Your task to perform on an android device: Open Android settings Image 0: 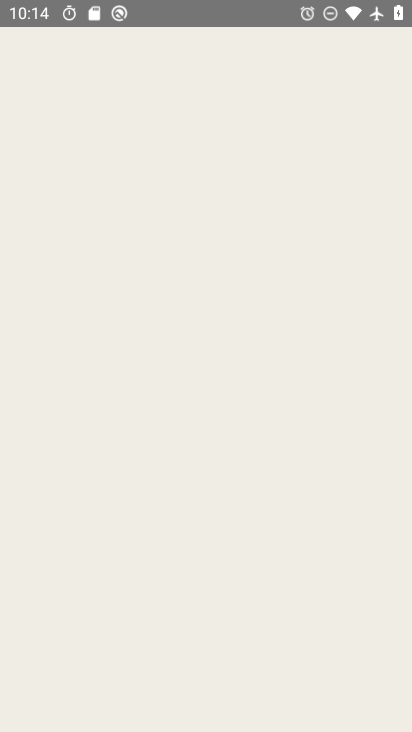
Step 0: press home button
Your task to perform on an android device: Open Android settings Image 1: 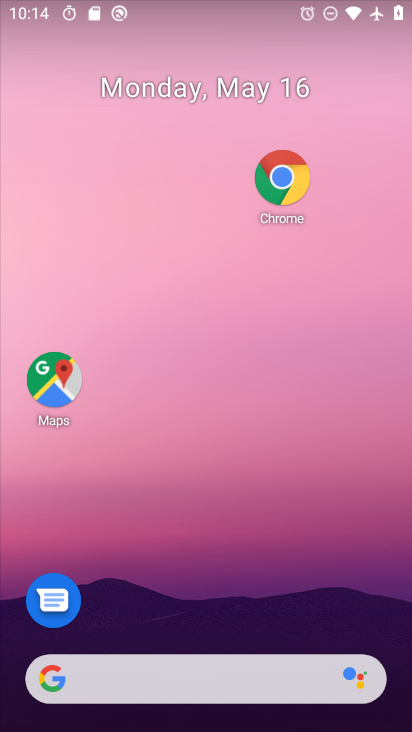
Step 1: drag from (244, 666) to (288, 153)
Your task to perform on an android device: Open Android settings Image 2: 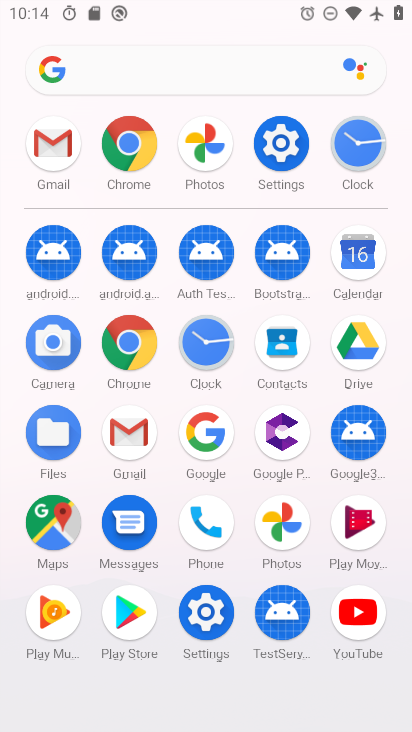
Step 2: click (273, 159)
Your task to perform on an android device: Open Android settings Image 3: 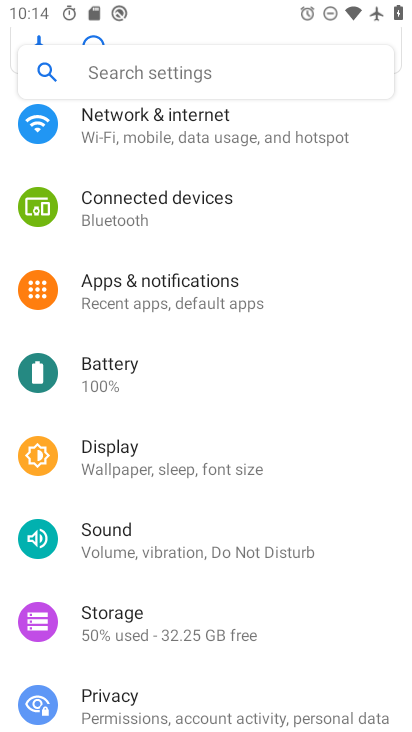
Step 3: task complete